Your task to perform on an android device: turn on data saver in the chrome app Image 0: 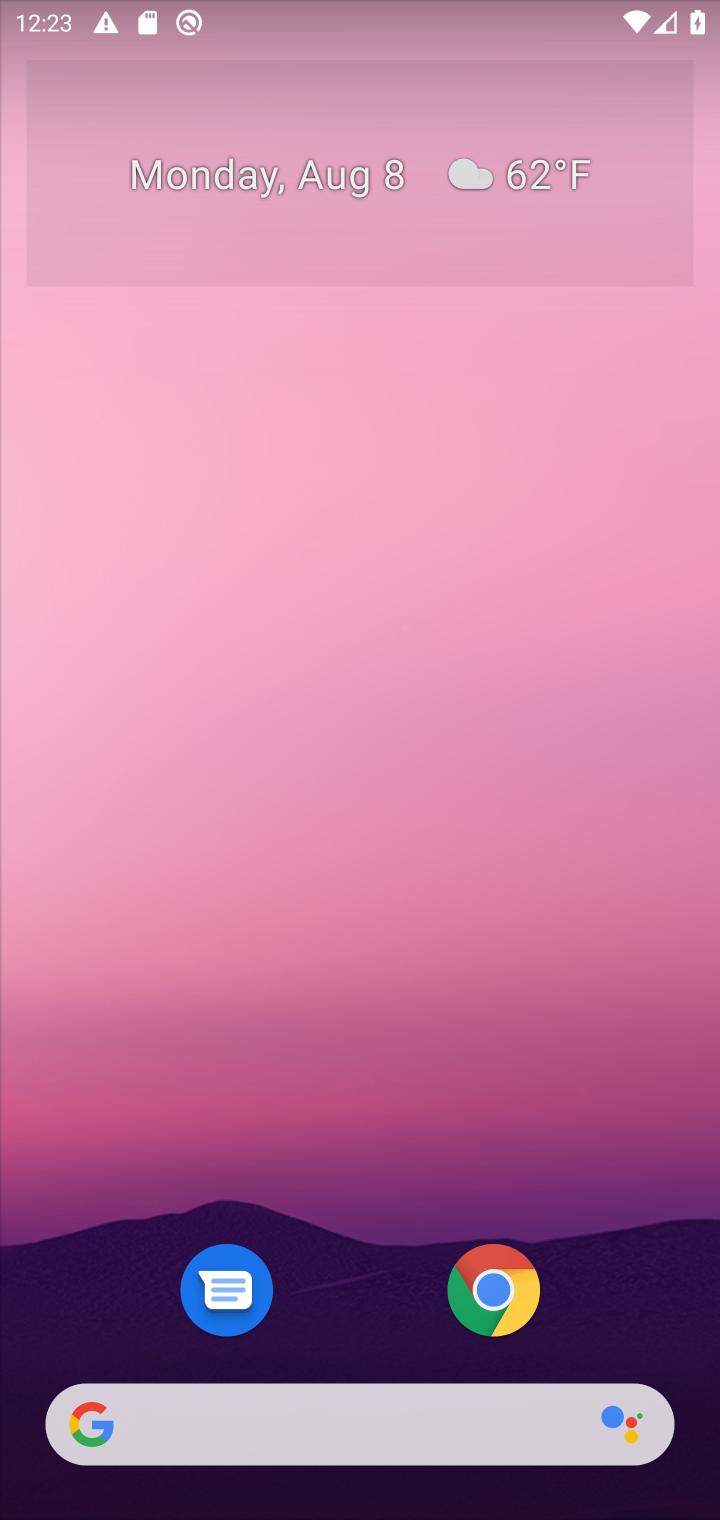
Step 0: click (381, 611)
Your task to perform on an android device: turn on data saver in the chrome app Image 1: 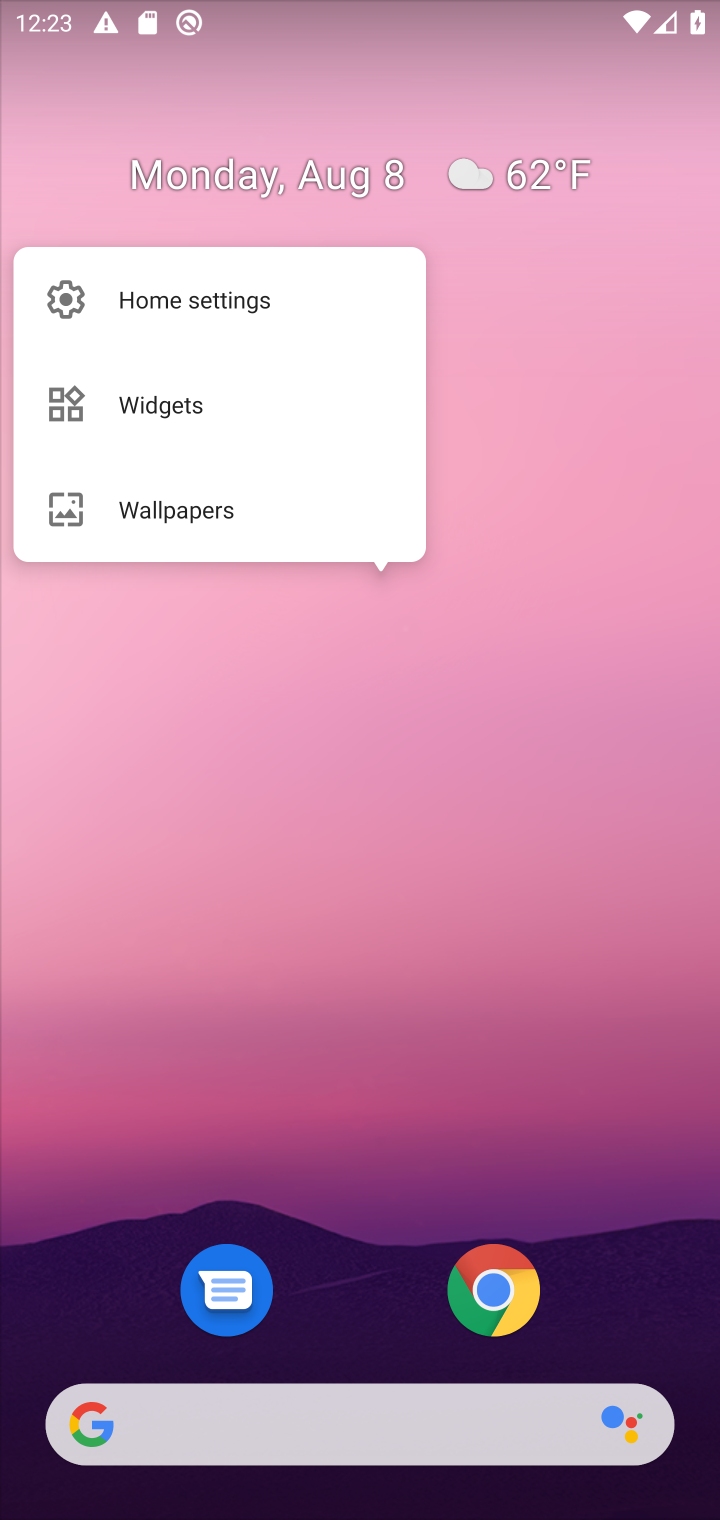
Step 1: click (362, 1234)
Your task to perform on an android device: turn on data saver in the chrome app Image 2: 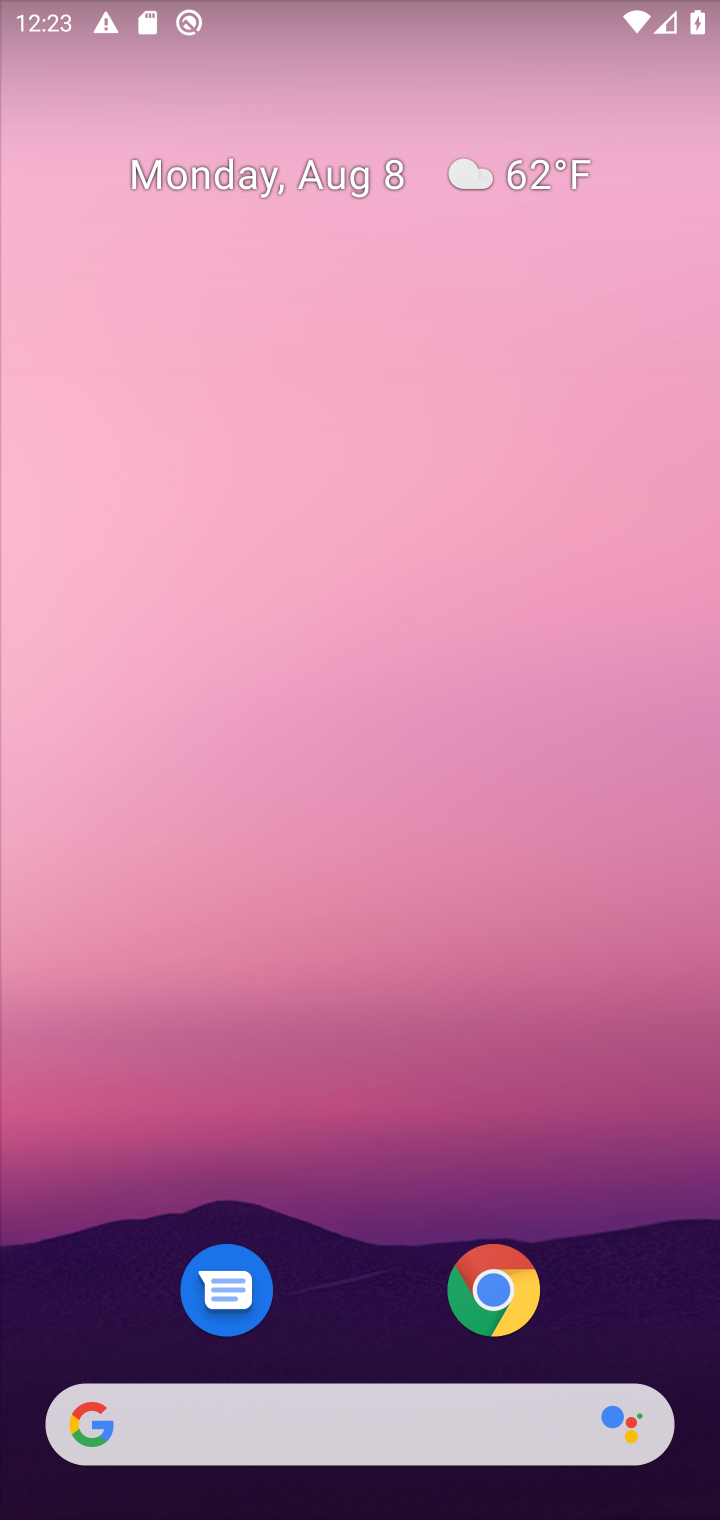
Step 2: drag from (347, 1369) to (361, 611)
Your task to perform on an android device: turn on data saver in the chrome app Image 3: 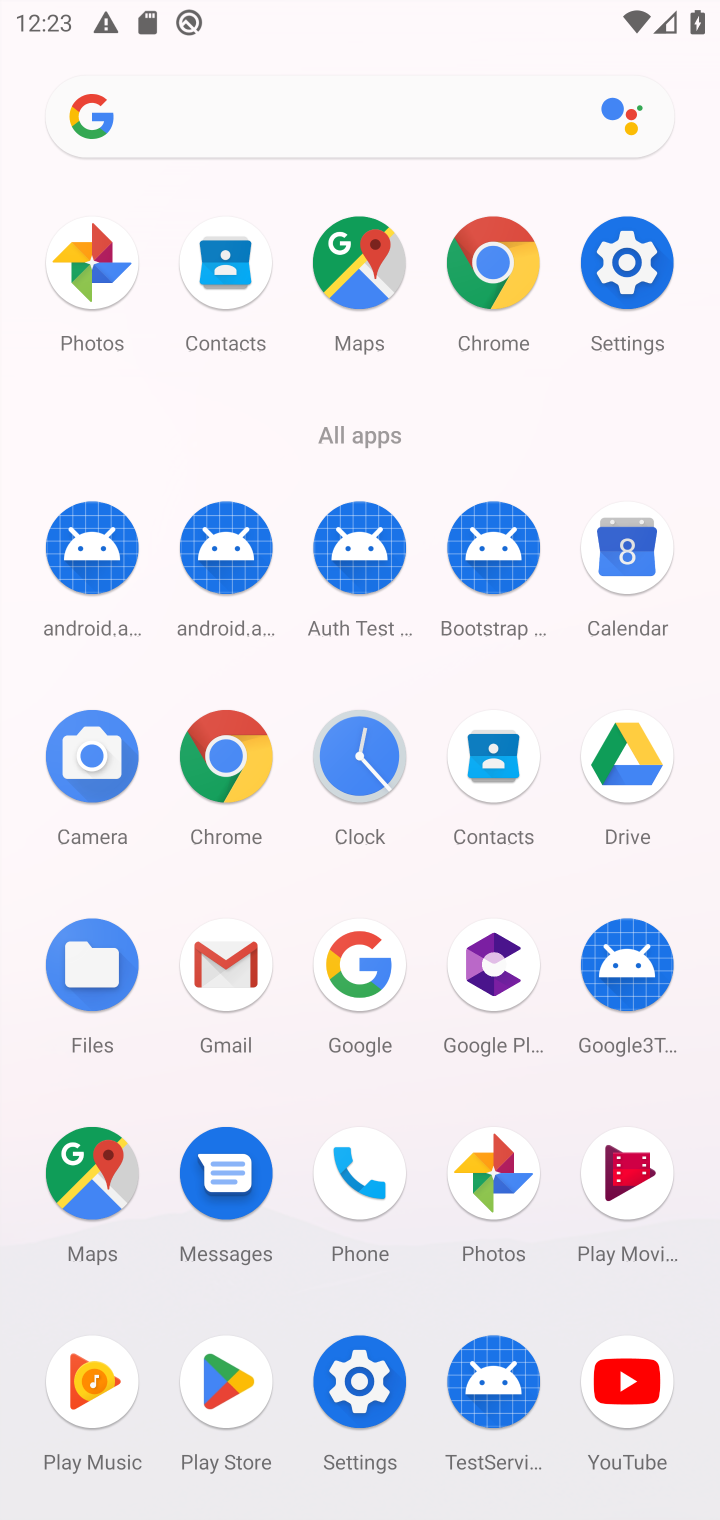
Step 3: click (210, 789)
Your task to perform on an android device: turn on data saver in the chrome app Image 4: 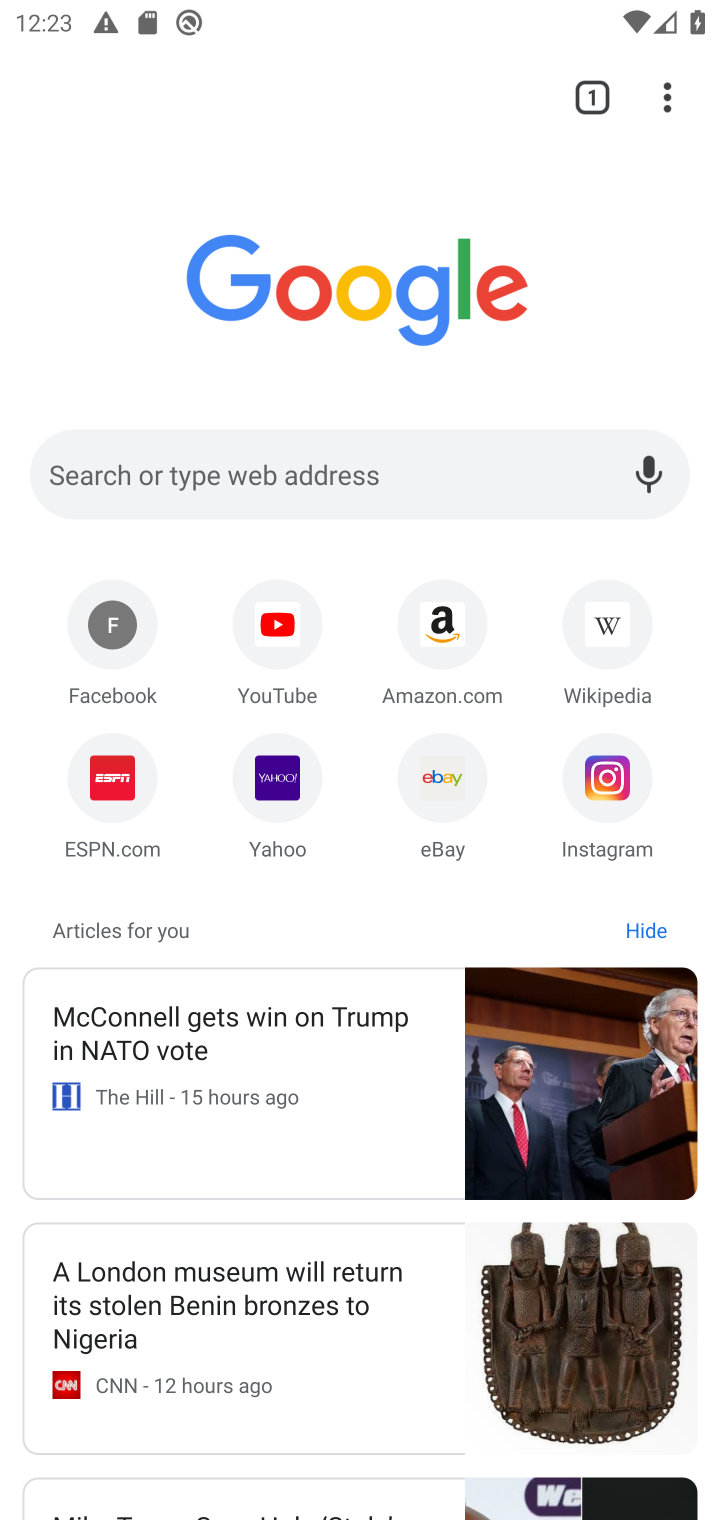
Step 4: click (654, 90)
Your task to perform on an android device: turn on data saver in the chrome app Image 5: 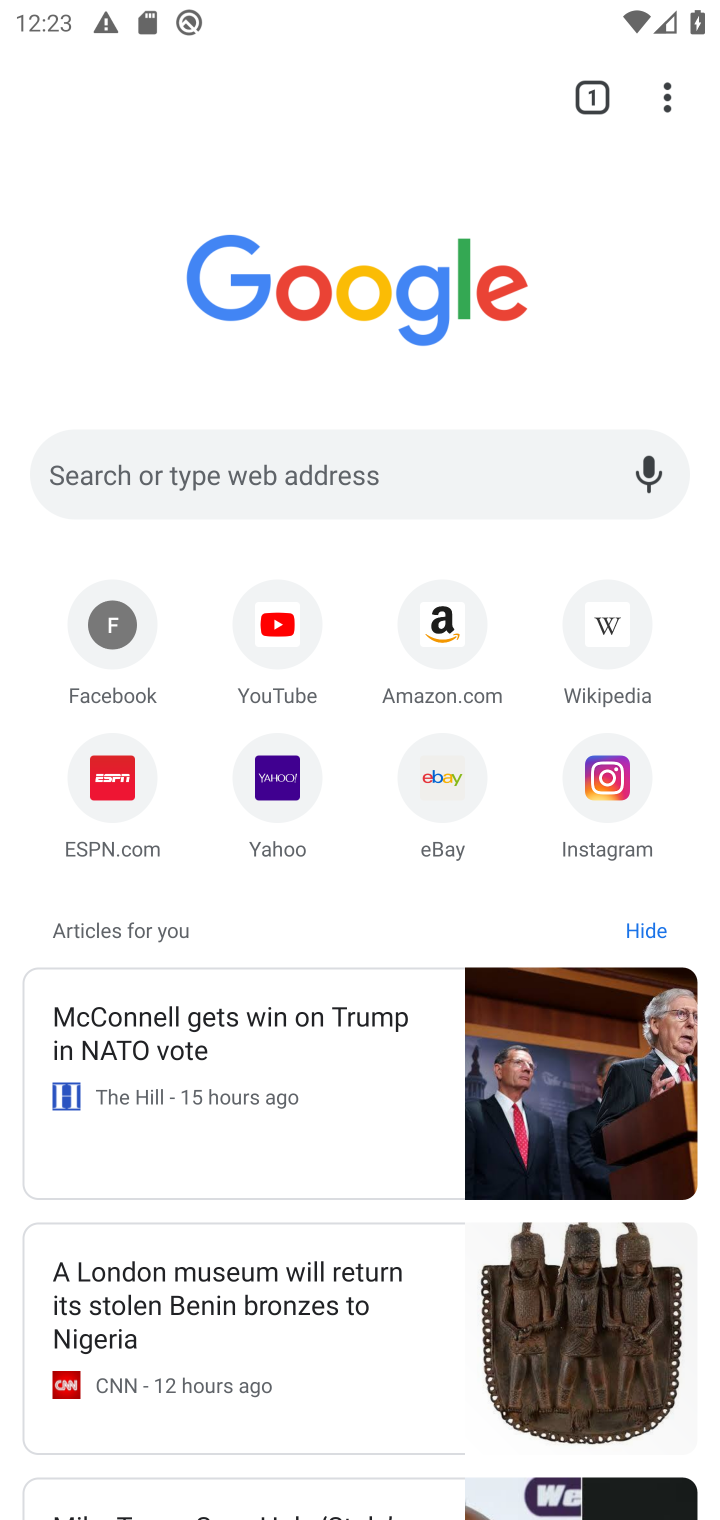
Step 5: click (664, 100)
Your task to perform on an android device: turn on data saver in the chrome app Image 6: 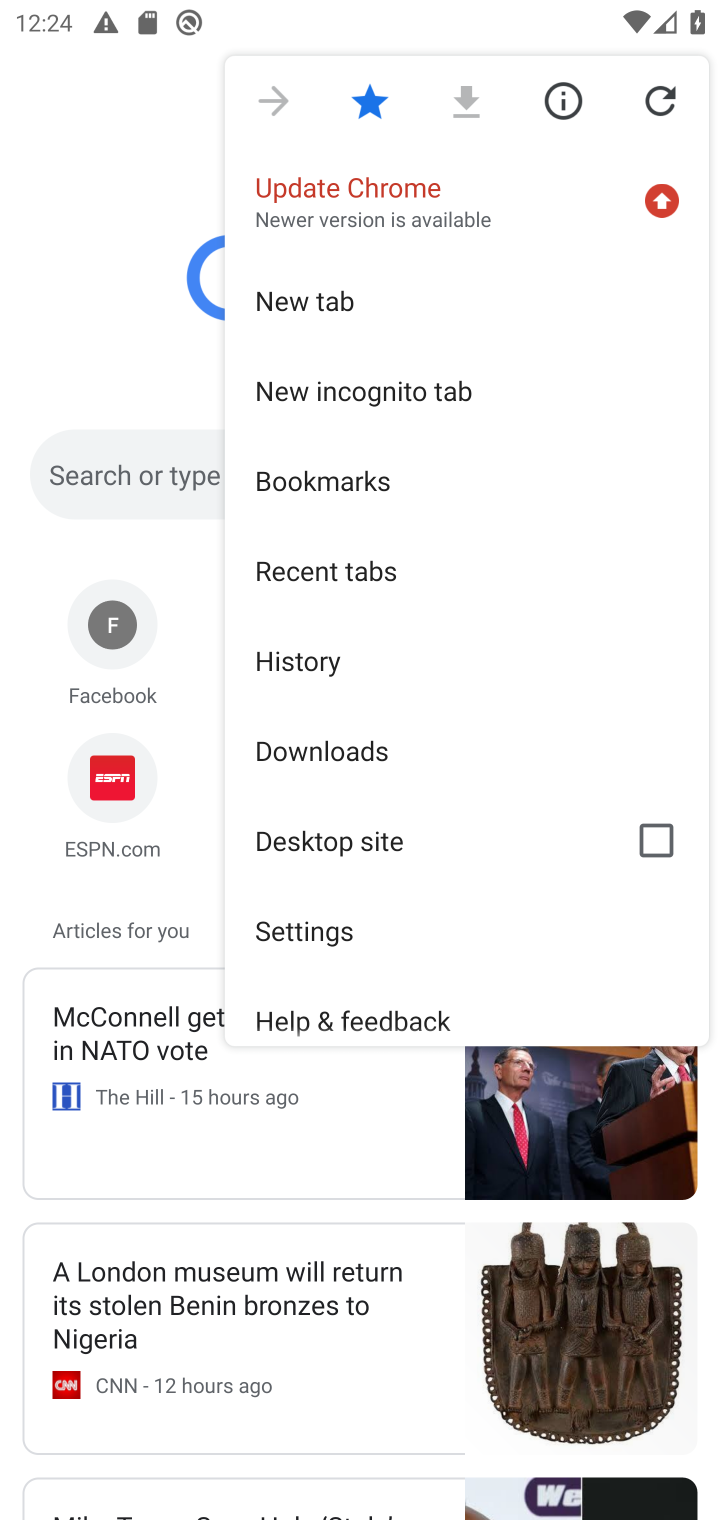
Step 6: click (327, 902)
Your task to perform on an android device: turn on data saver in the chrome app Image 7: 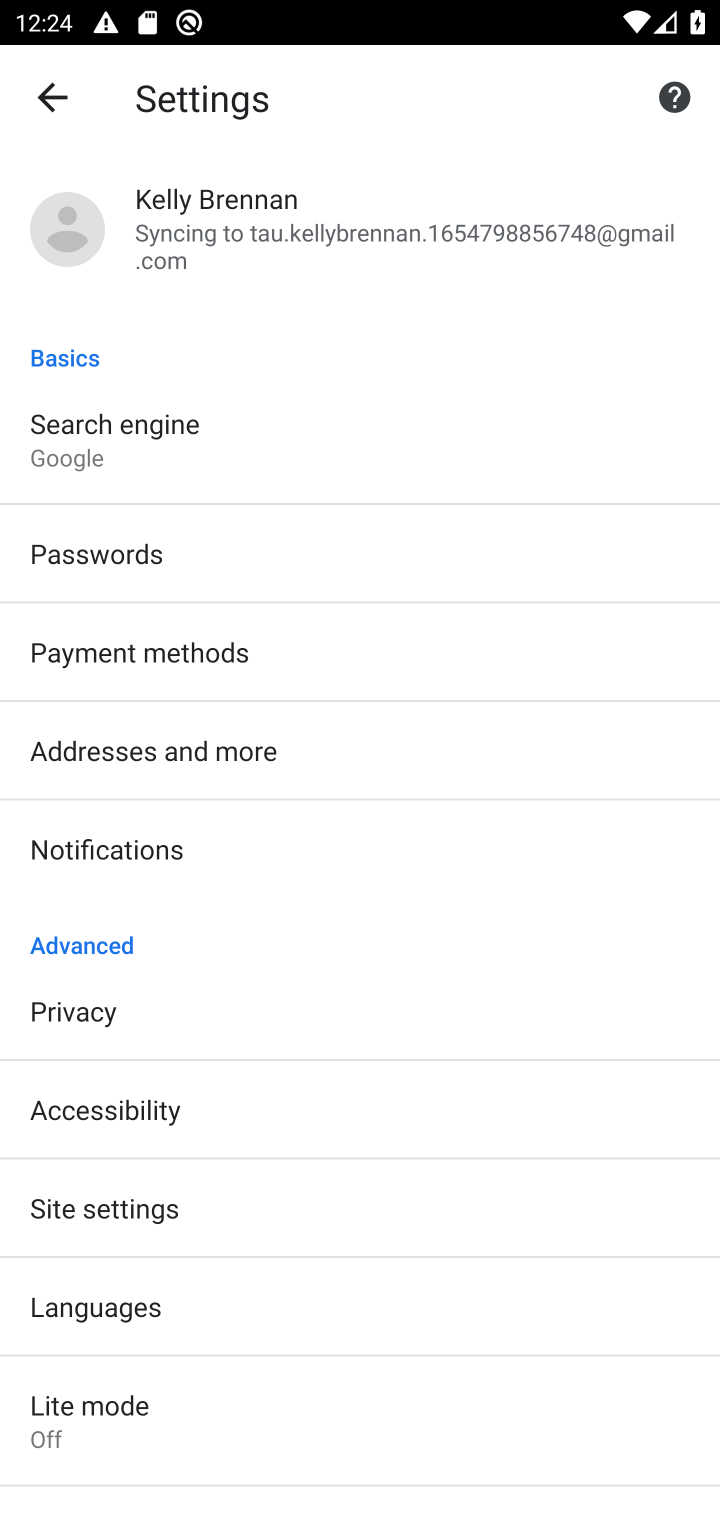
Step 7: click (83, 1434)
Your task to perform on an android device: turn on data saver in the chrome app Image 8: 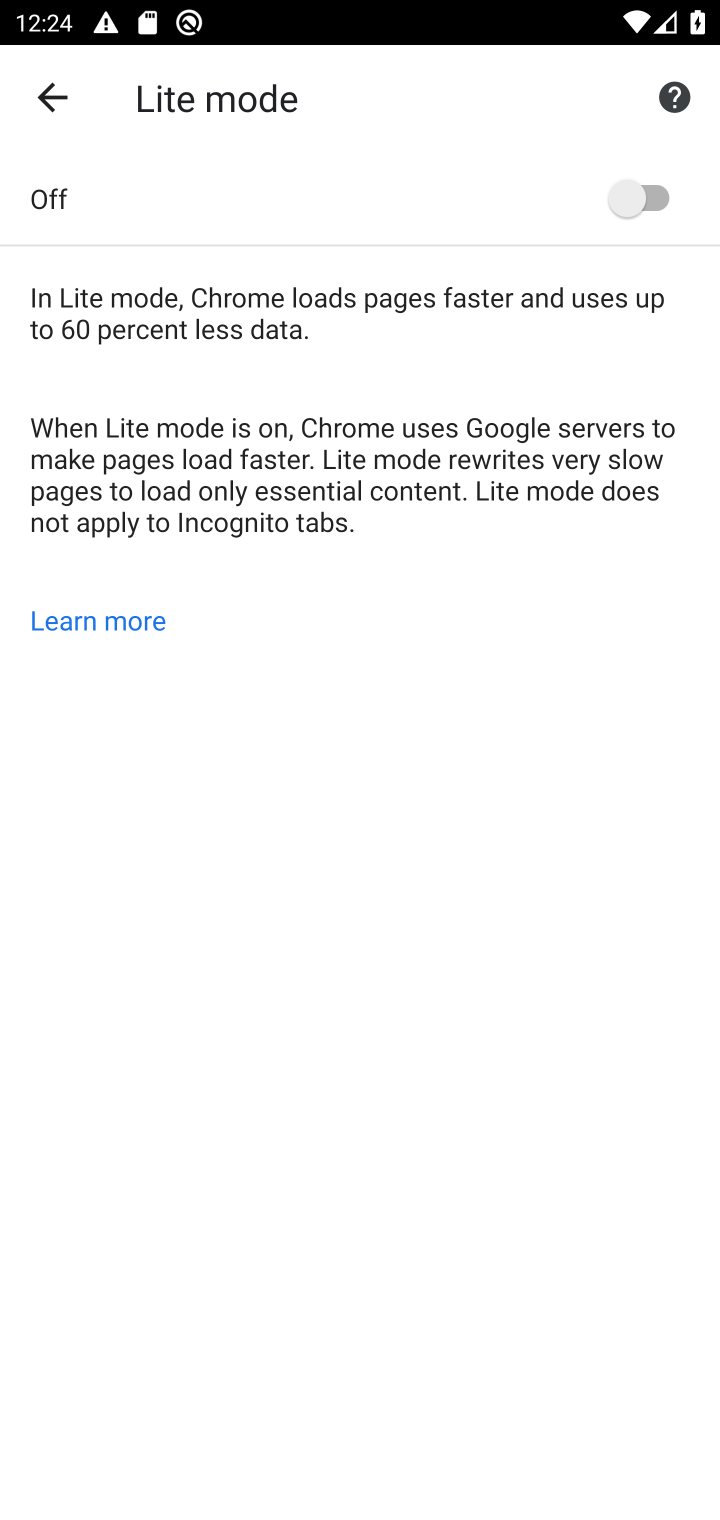
Step 8: click (682, 211)
Your task to perform on an android device: turn on data saver in the chrome app Image 9: 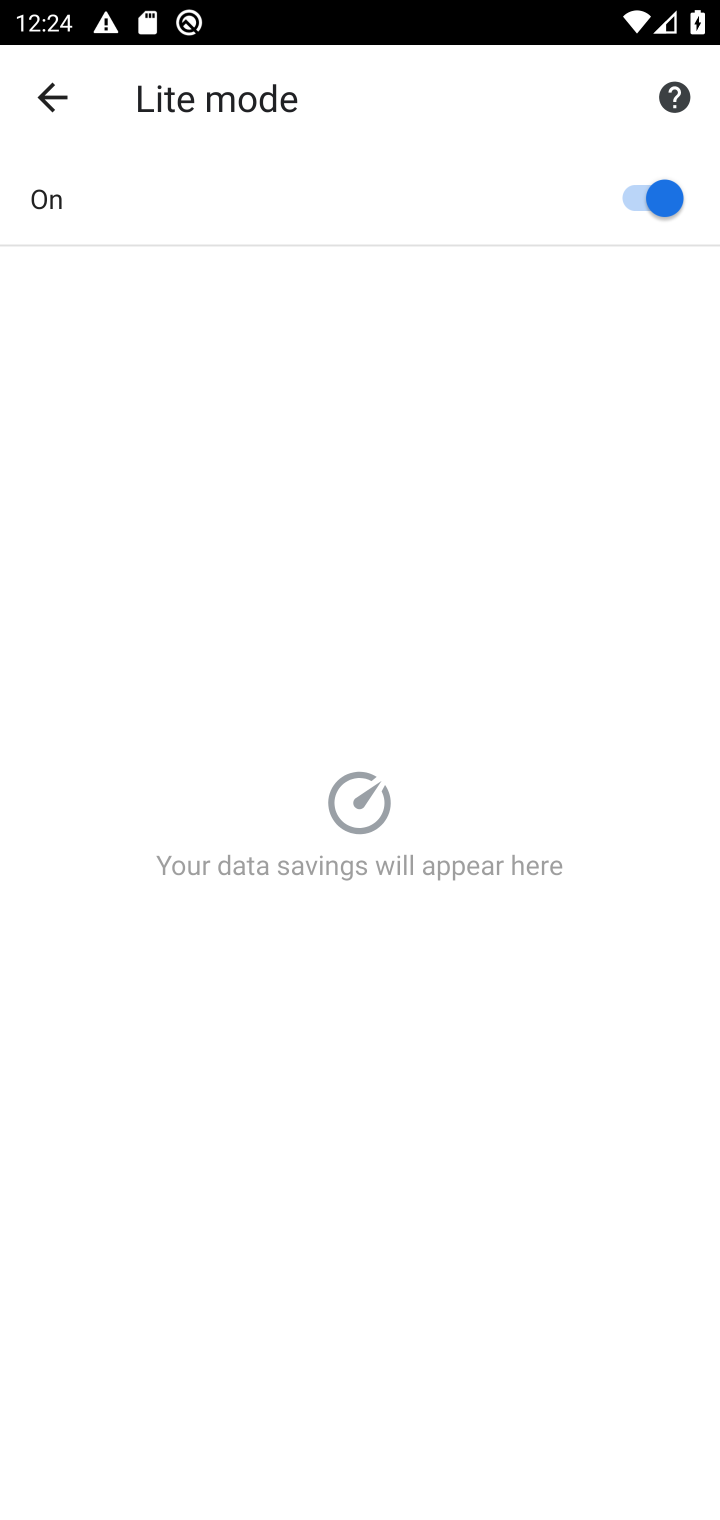
Step 9: task complete